Your task to perform on an android device: Go to Yahoo.com Image 0: 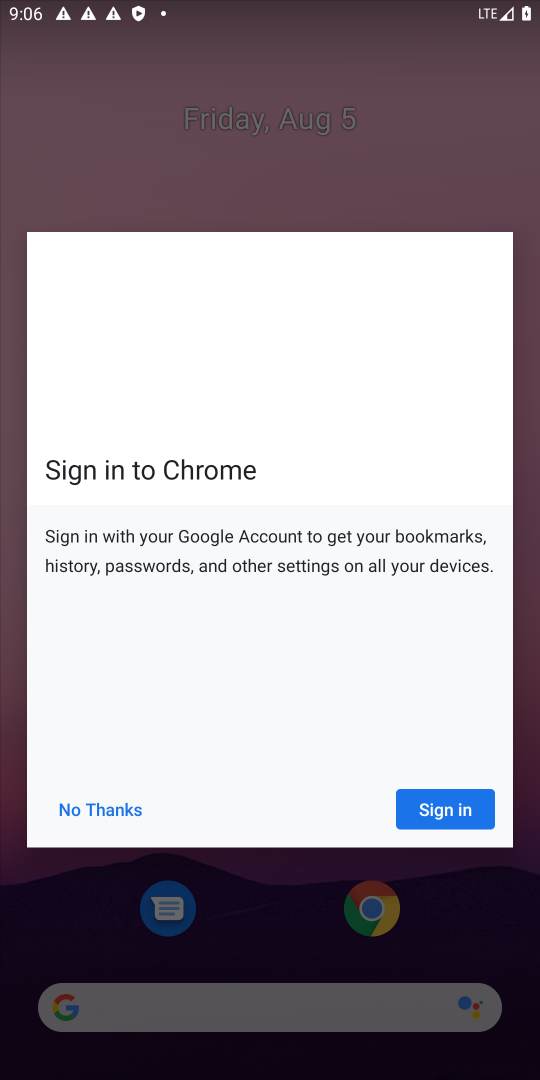
Step 0: click (93, 798)
Your task to perform on an android device: Go to Yahoo.com Image 1: 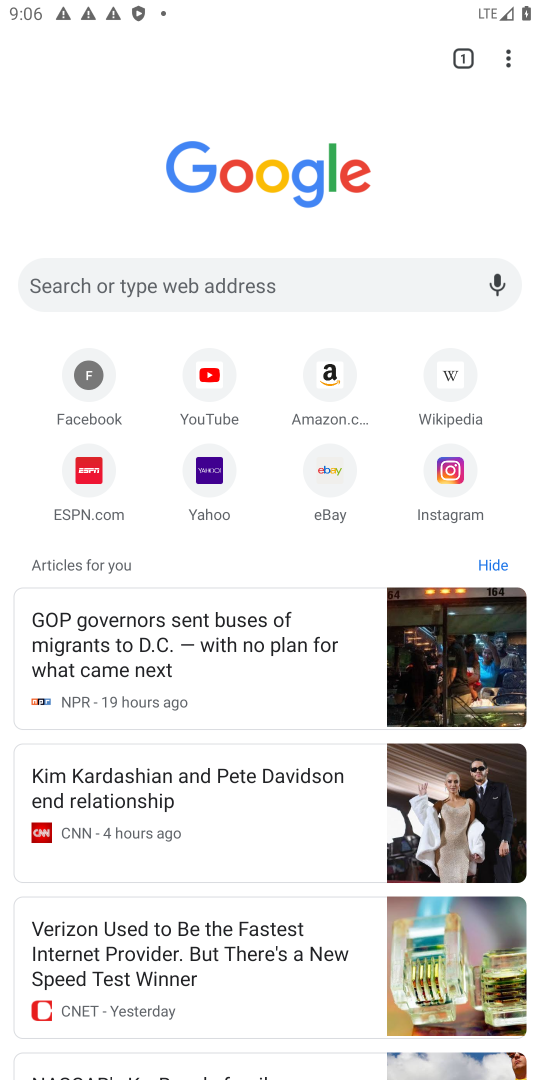
Step 1: click (203, 478)
Your task to perform on an android device: Go to Yahoo.com Image 2: 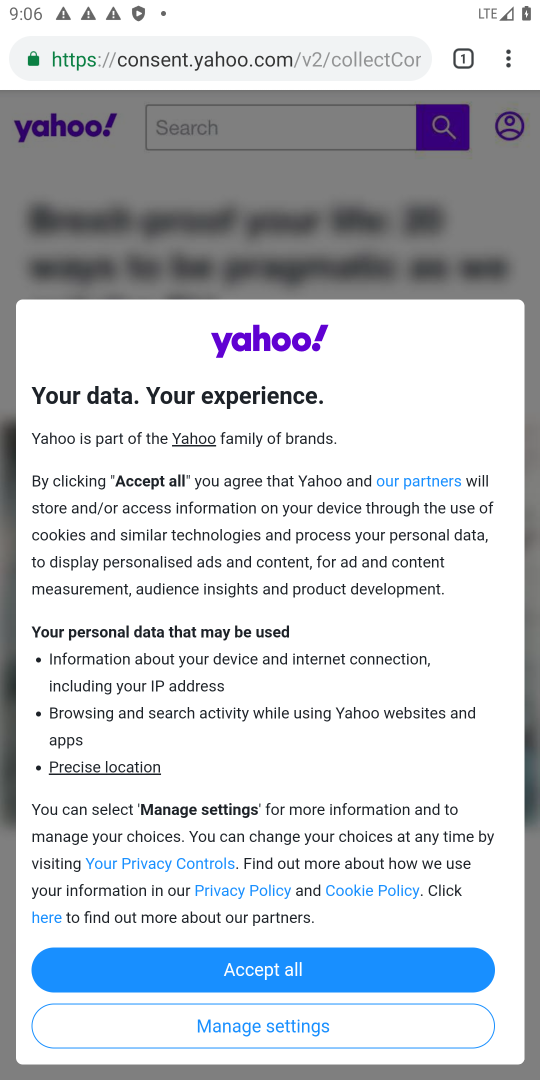
Step 2: task complete